Your task to perform on an android device: set an alarm Image 0: 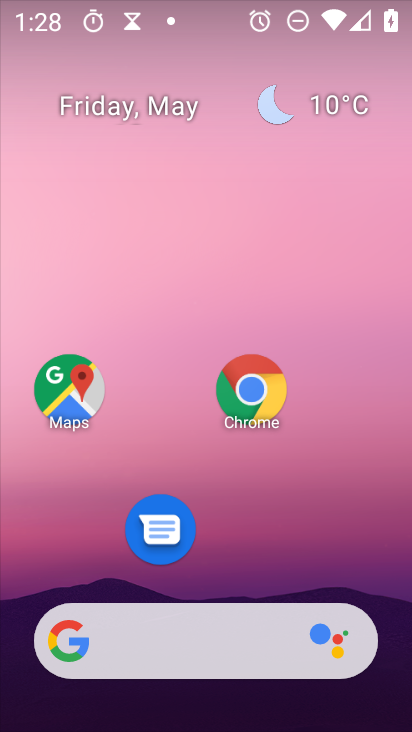
Step 0: press home button
Your task to perform on an android device: set an alarm Image 1: 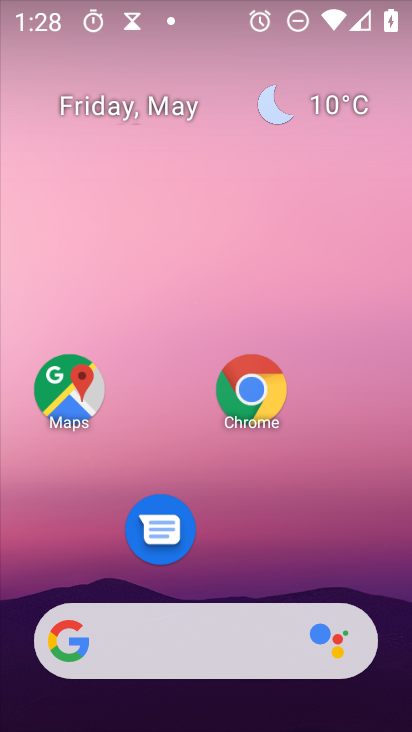
Step 1: drag from (167, 645) to (249, 147)
Your task to perform on an android device: set an alarm Image 2: 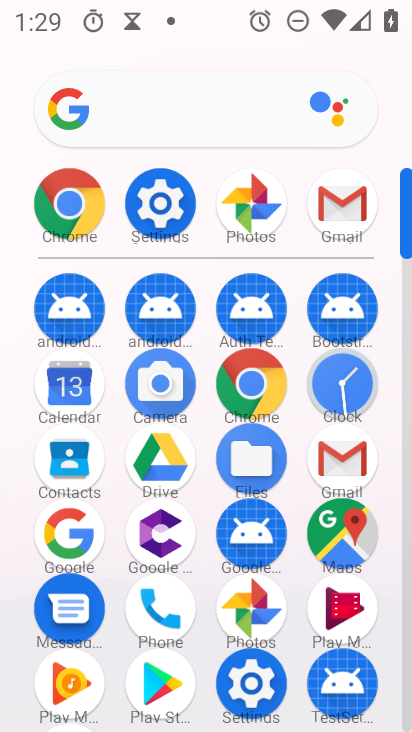
Step 2: click (344, 392)
Your task to perform on an android device: set an alarm Image 3: 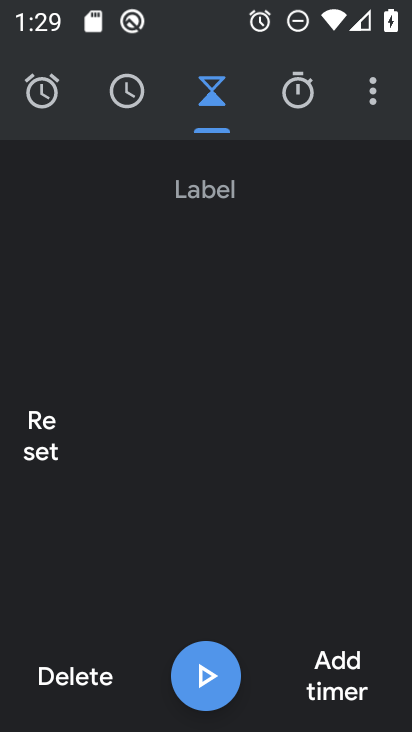
Step 3: click (28, 102)
Your task to perform on an android device: set an alarm Image 4: 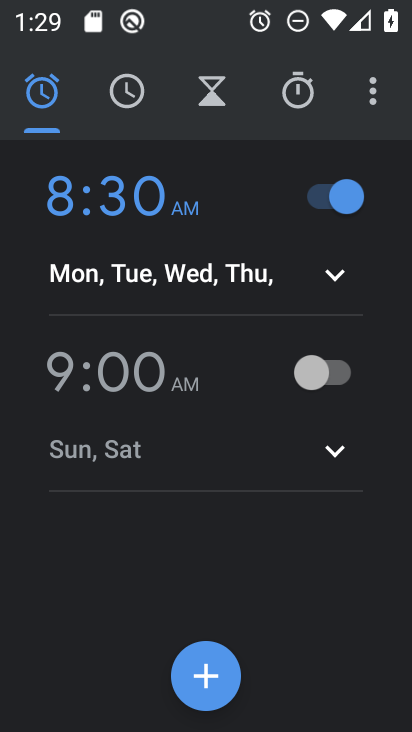
Step 4: click (144, 376)
Your task to perform on an android device: set an alarm Image 5: 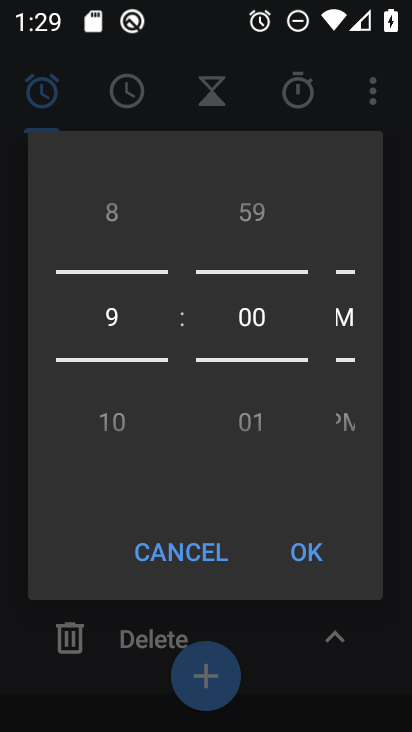
Step 5: click (303, 551)
Your task to perform on an android device: set an alarm Image 6: 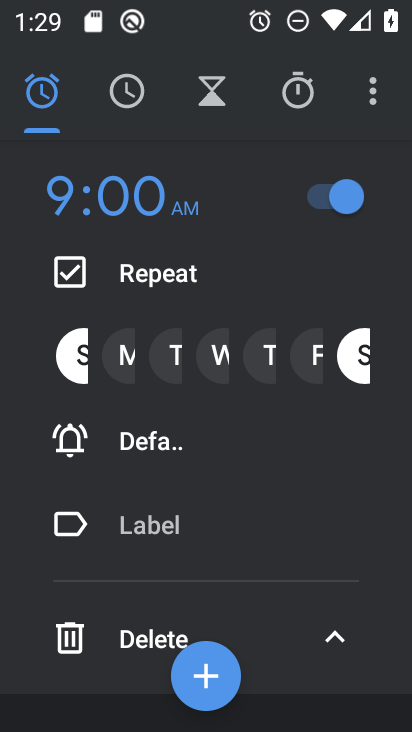
Step 6: task complete